Your task to perform on an android device: change your default location settings in chrome Image 0: 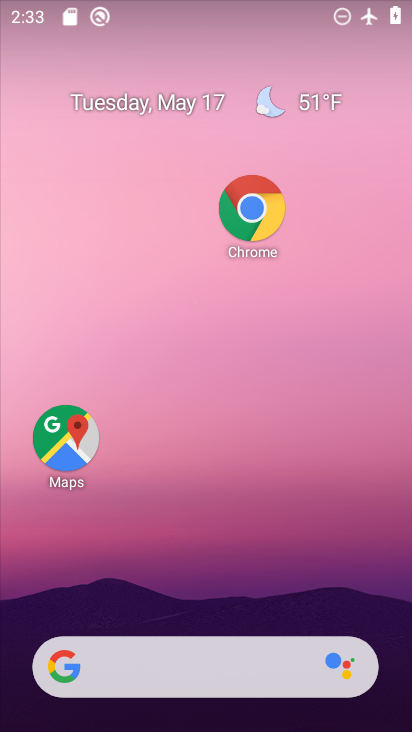
Step 0: drag from (206, 618) to (216, 0)
Your task to perform on an android device: change your default location settings in chrome Image 1: 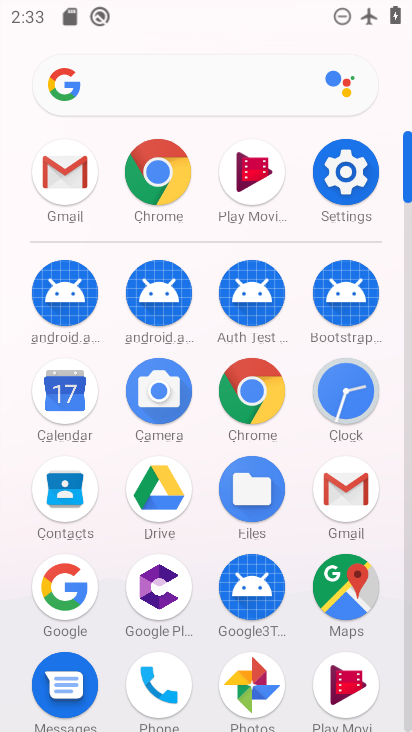
Step 1: click (173, 184)
Your task to perform on an android device: change your default location settings in chrome Image 2: 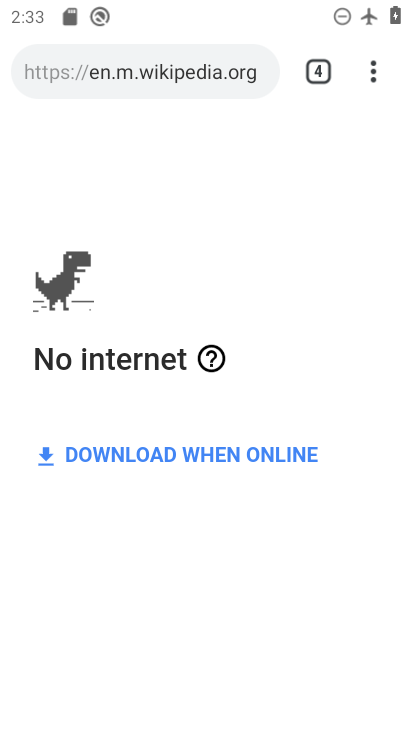
Step 2: click (380, 70)
Your task to perform on an android device: change your default location settings in chrome Image 3: 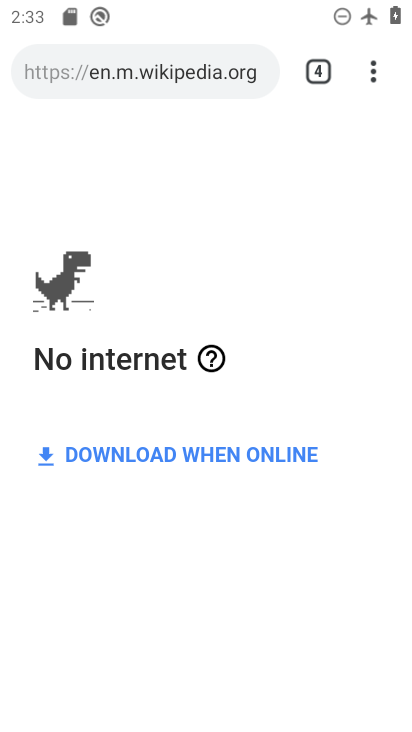
Step 3: drag from (365, 73) to (136, 578)
Your task to perform on an android device: change your default location settings in chrome Image 4: 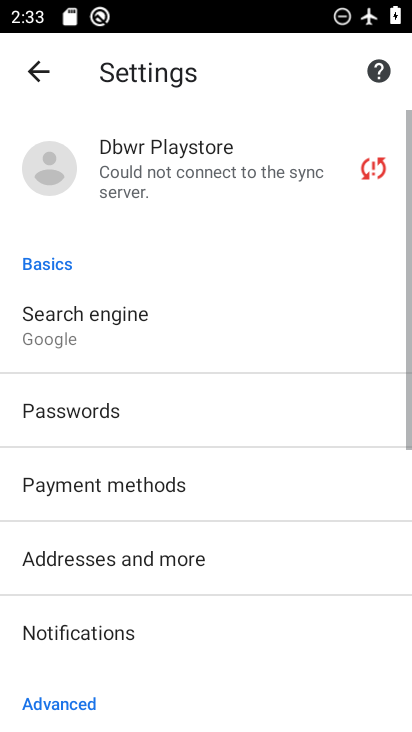
Step 4: drag from (151, 545) to (107, 82)
Your task to perform on an android device: change your default location settings in chrome Image 5: 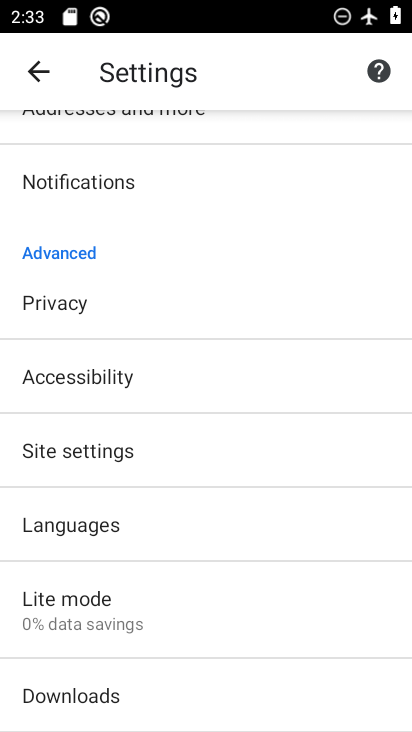
Step 5: click (75, 439)
Your task to perform on an android device: change your default location settings in chrome Image 6: 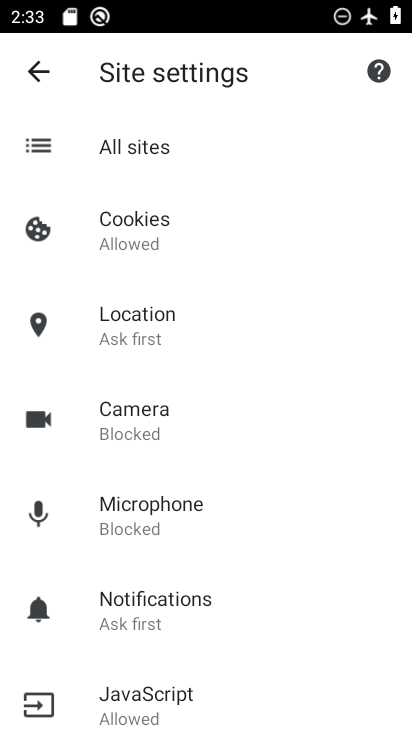
Step 6: click (123, 344)
Your task to perform on an android device: change your default location settings in chrome Image 7: 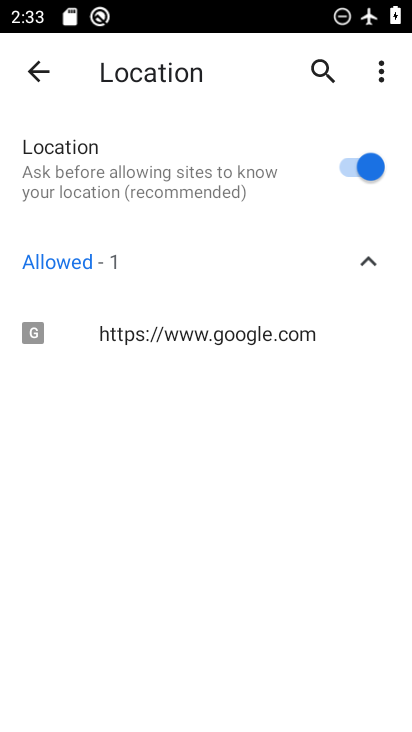
Step 7: click (335, 153)
Your task to perform on an android device: change your default location settings in chrome Image 8: 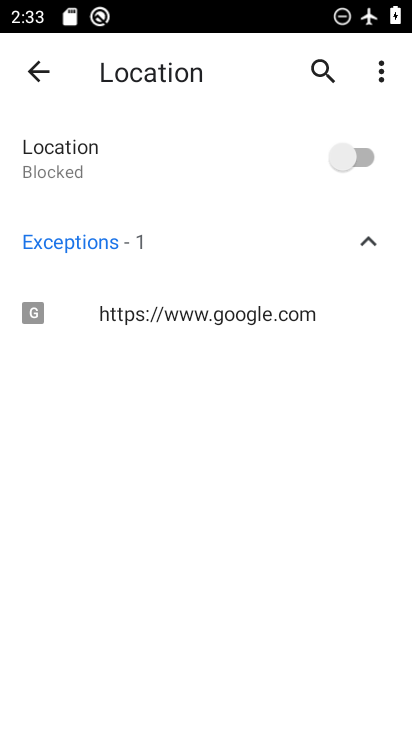
Step 8: task complete